Your task to perform on an android device: Open wifi settings Image 0: 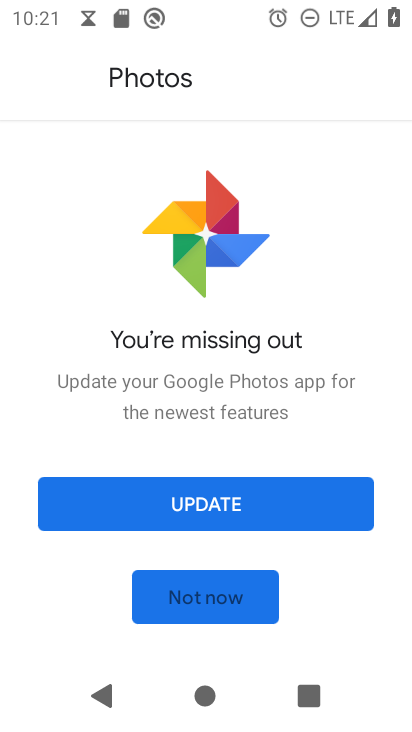
Step 0: press home button
Your task to perform on an android device: Open wifi settings Image 1: 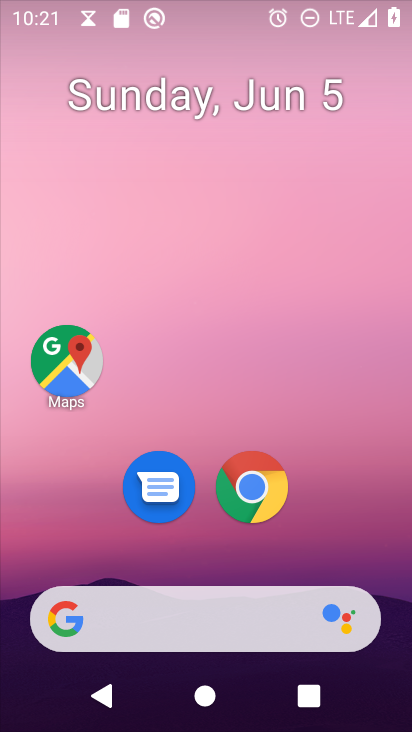
Step 1: drag from (202, 501) to (193, 172)
Your task to perform on an android device: Open wifi settings Image 2: 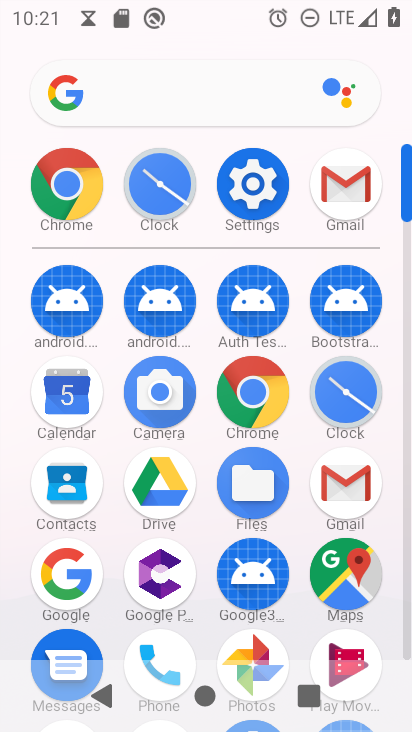
Step 2: click (244, 162)
Your task to perform on an android device: Open wifi settings Image 3: 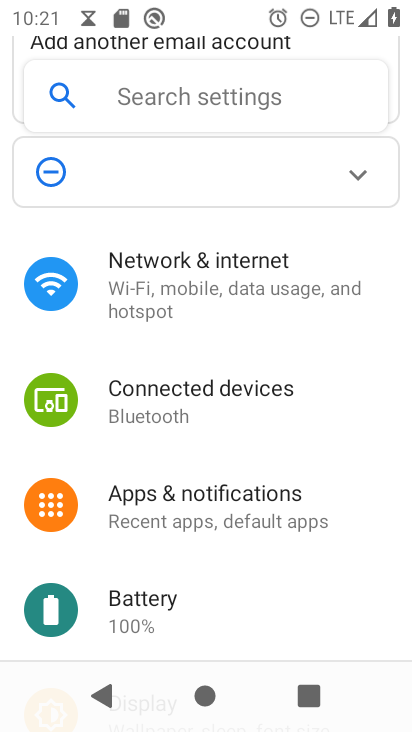
Step 3: click (239, 221)
Your task to perform on an android device: Open wifi settings Image 4: 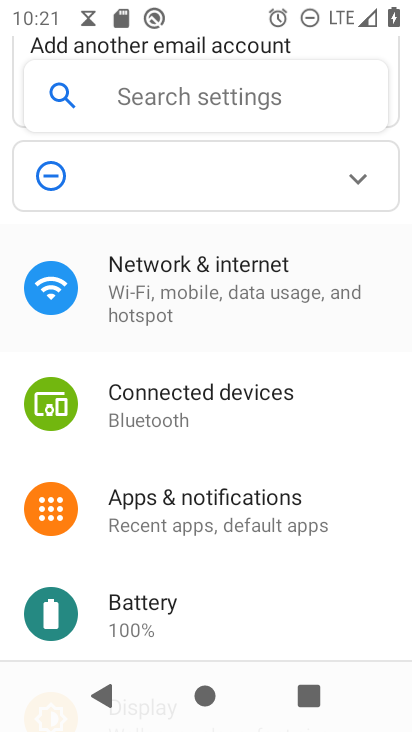
Step 4: click (232, 253)
Your task to perform on an android device: Open wifi settings Image 5: 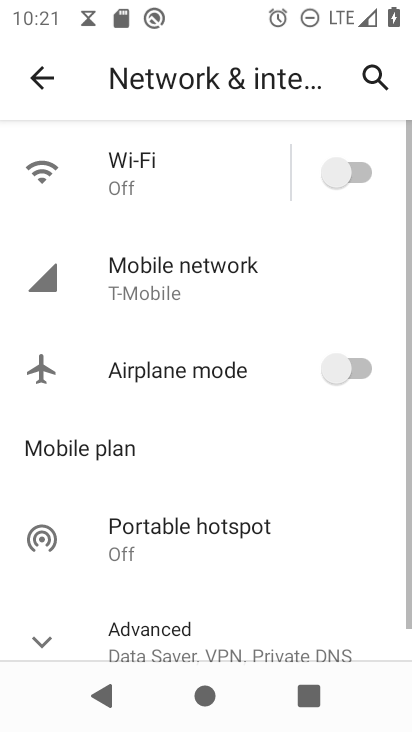
Step 5: click (146, 178)
Your task to perform on an android device: Open wifi settings Image 6: 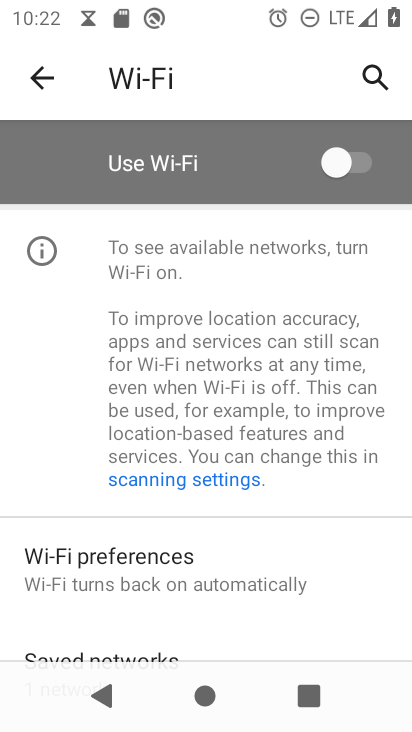
Step 6: task complete